Your task to perform on an android device: allow notifications from all sites in the chrome app Image 0: 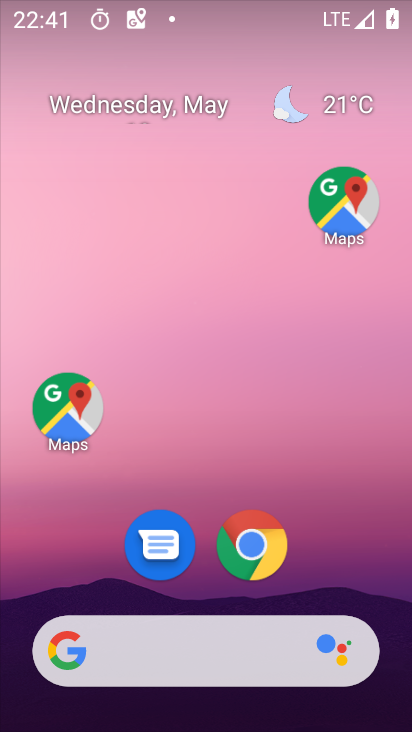
Step 0: click (228, 555)
Your task to perform on an android device: allow notifications from all sites in the chrome app Image 1: 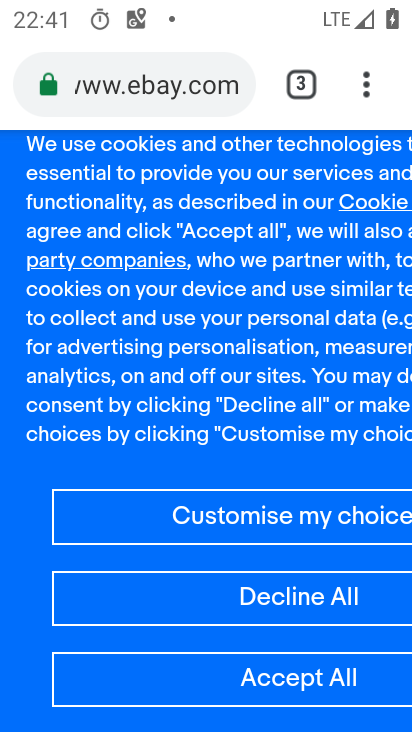
Step 1: click (378, 101)
Your task to perform on an android device: allow notifications from all sites in the chrome app Image 2: 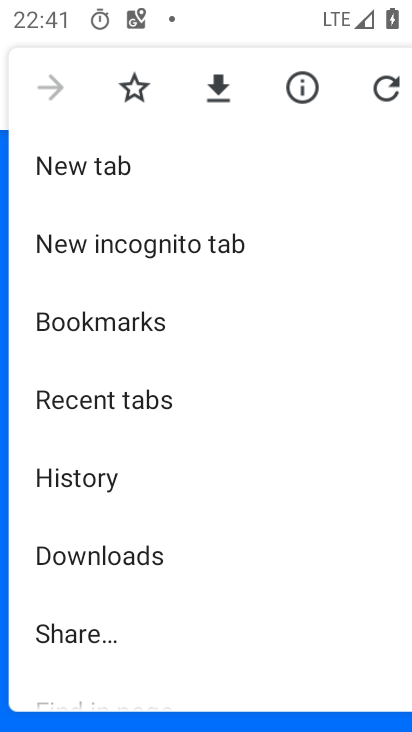
Step 2: drag from (153, 651) to (255, 266)
Your task to perform on an android device: allow notifications from all sites in the chrome app Image 3: 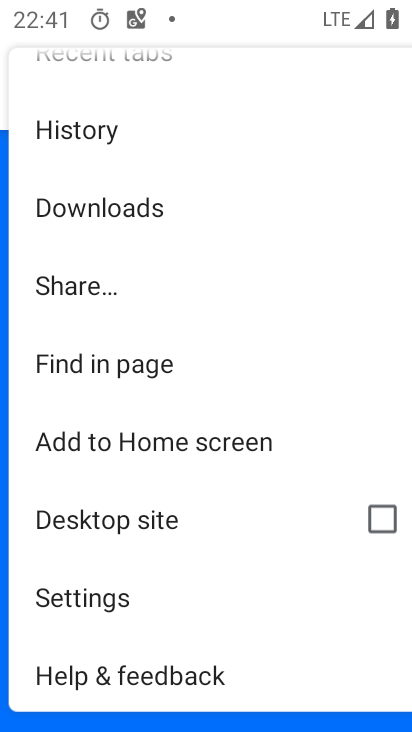
Step 3: click (115, 603)
Your task to perform on an android device: allow notifications from all sites in the chrome app Image 4: 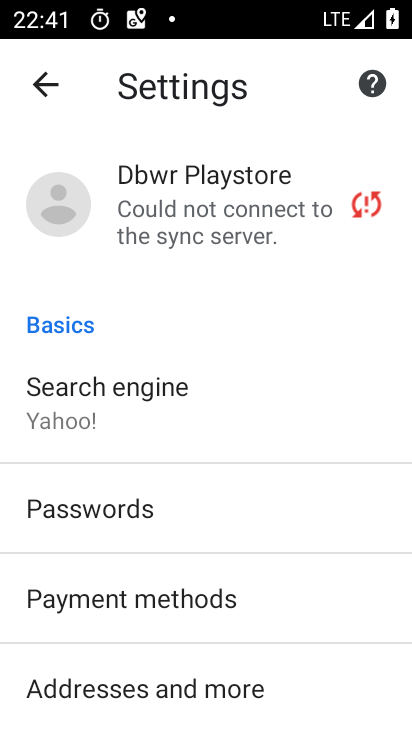
Step 4: drag from (149, 638) to (304, 252)
Your task to perform on an android device: allow notifications from all sites in the chrome app Image 5: 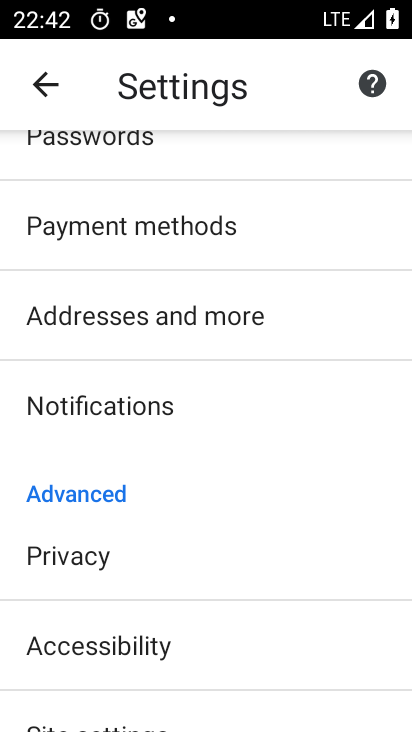
Step 5: click (127, 393)
Your task to perform on an android device: allow notifications from all sites in the chrome app Image 6: 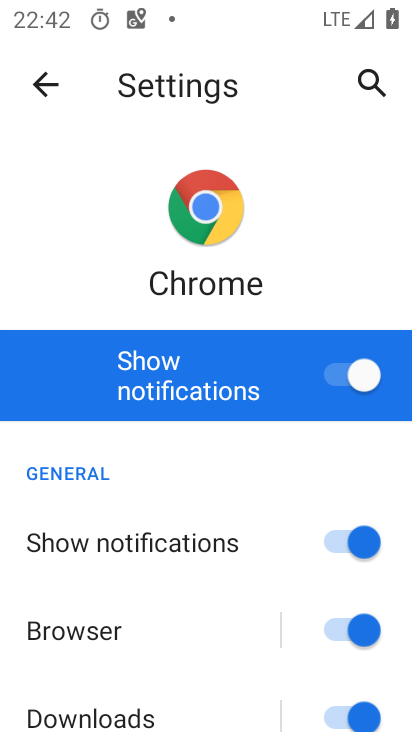
Step 6: task complete